Your task to perform on an android device: Open CNN.com Image 0: 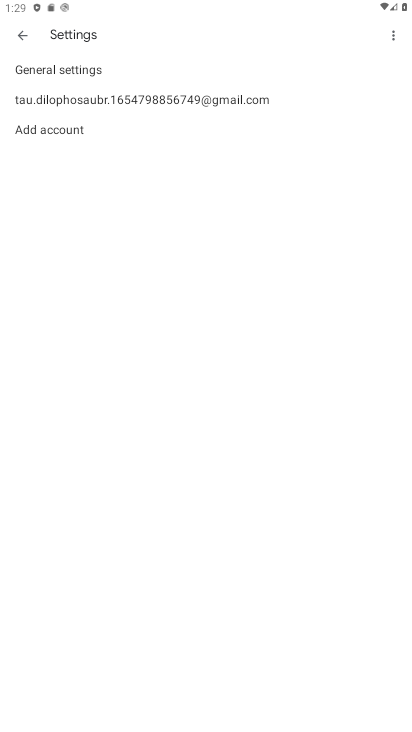
Step 0: press home button
Your task to perform on an android device: Open CNN.com Image 1: 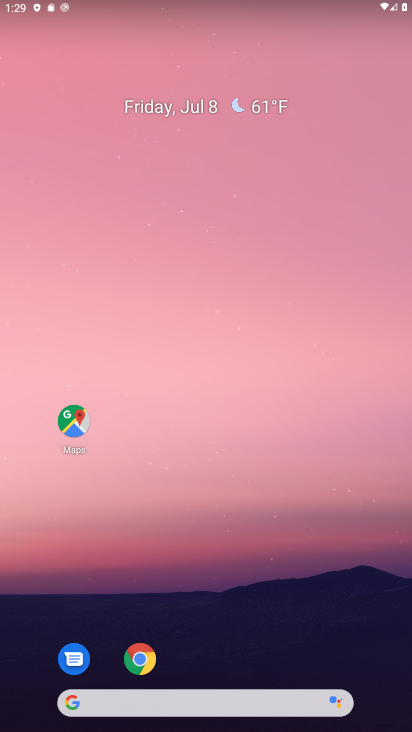
Step 1: drag from (212, 649) to (134, 109)
Your task to perform on an android device: Open CNN.com Image 2: 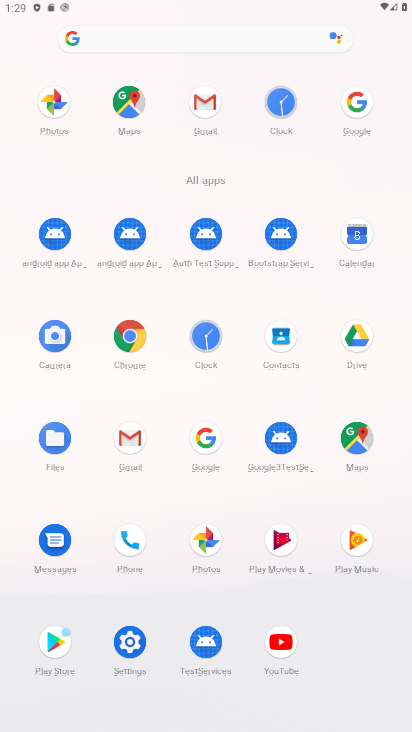
Step 2: click (138, 342)
Your task to perform on an android device: Open CNN.com Image 3: 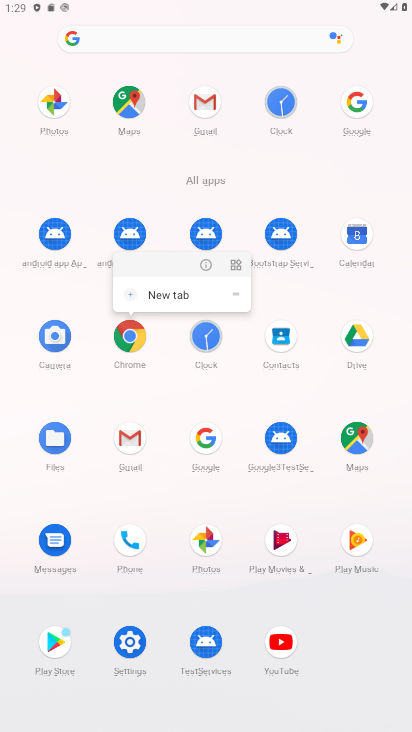
Step 3: click (131, 325)
Your task to perform on an android device: Open CNN.com Image 4: 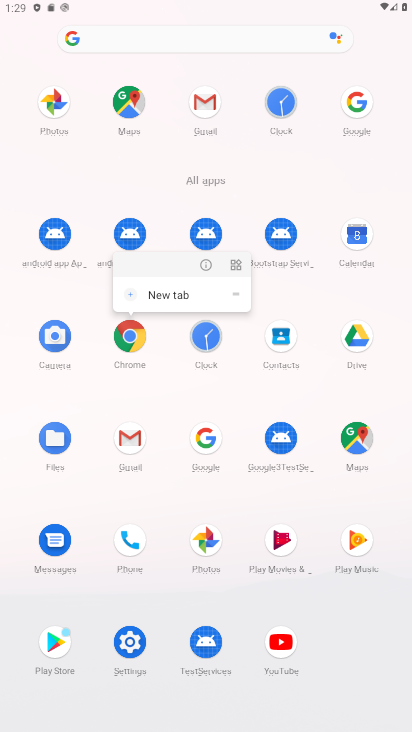
Step 4: click (132, 335)
Your task to perform on an android device: Open CNN.com Image 5: 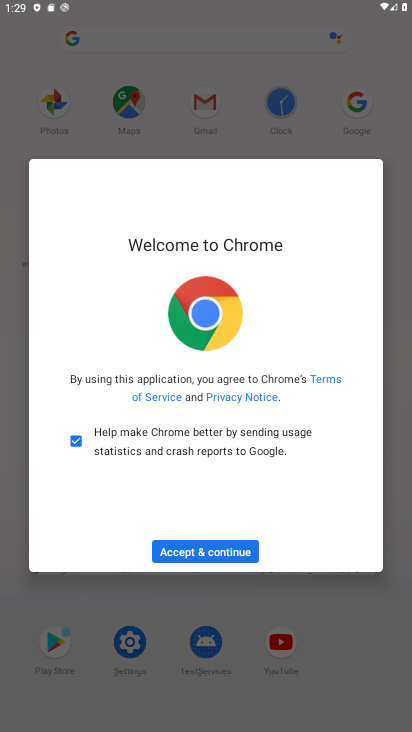
Step 5: click (230, 545)
Your task to perform on an android device: Open CNN.com Image 6: 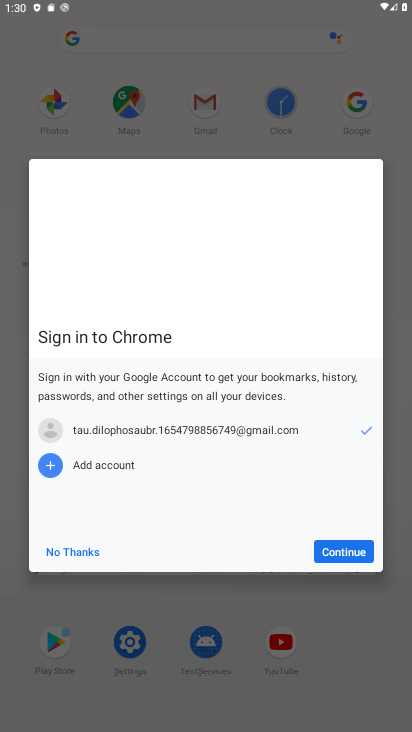
Step 6: click (344, 552)
Your task to perform on an android device: Open CNN.com Image 7: 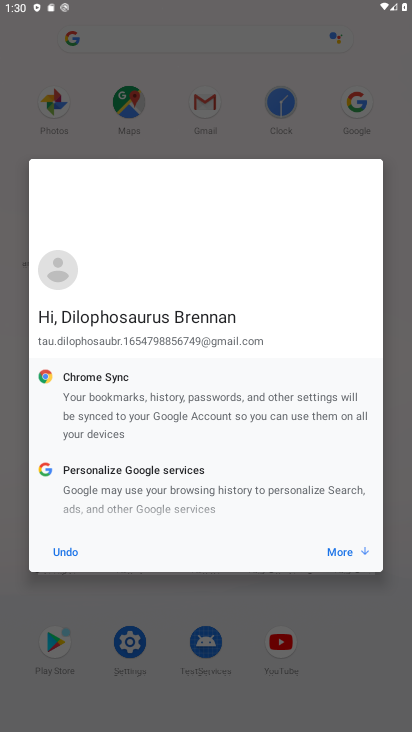
Step 7: click (351, 547)
Your task to perform on an android device: Open CNN.com Image 8: 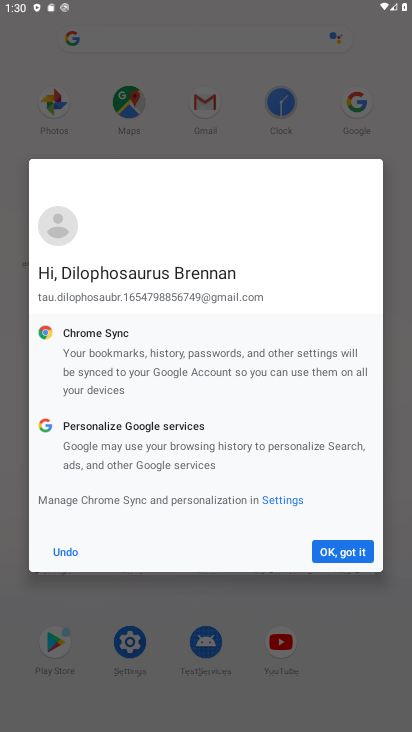
Step 8: click (348, 561)
Your task to perform on an android device: Open CNN.com Image 9: 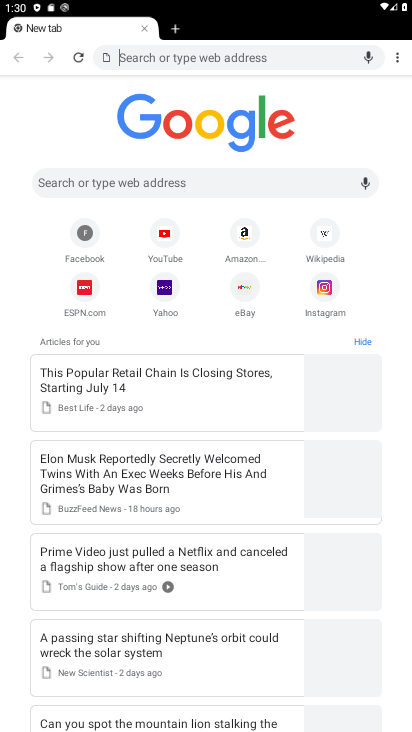
Step 9: click (156, 182)
Your task to perform on an android device: Open CNN.com Image 10: 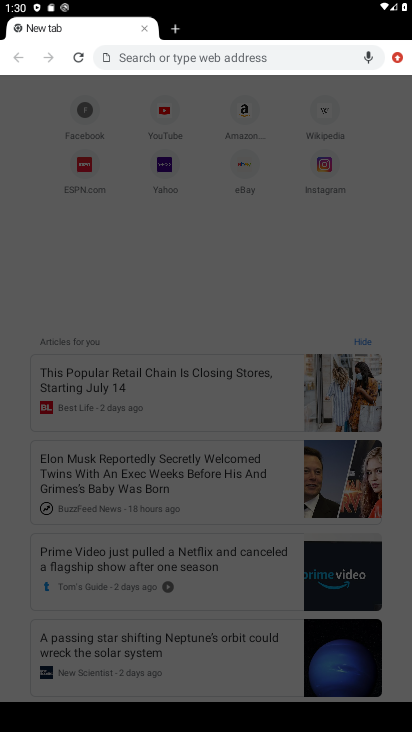
Step 10: type "cnn"
Your task to perform on an android device: Open CNN.com Image 11: 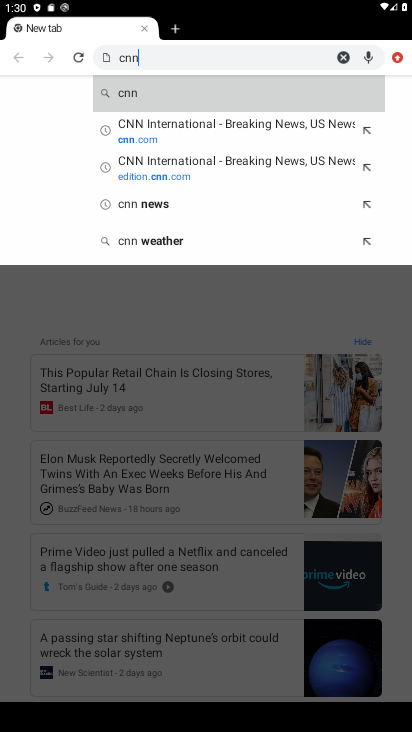
Step 11: type ""
Your task to perform on an android device: Open CNN.com Image 12: 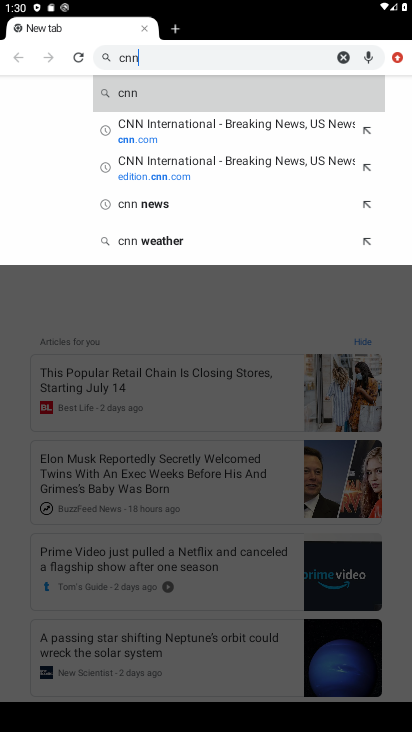
Step 12: click (138, 136)
Your task to perform on an android device: Open CNN.com Image 13: 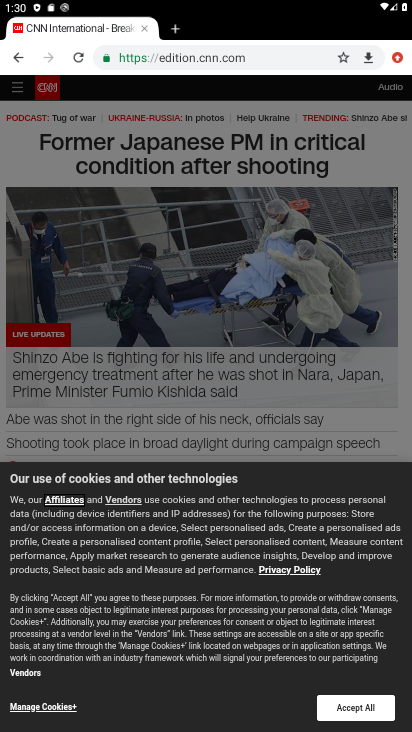
Step 13: task complete